Your task to perform on an android device: Add apple airpods pro to the cart on amazon, then select checkout. Image 0: 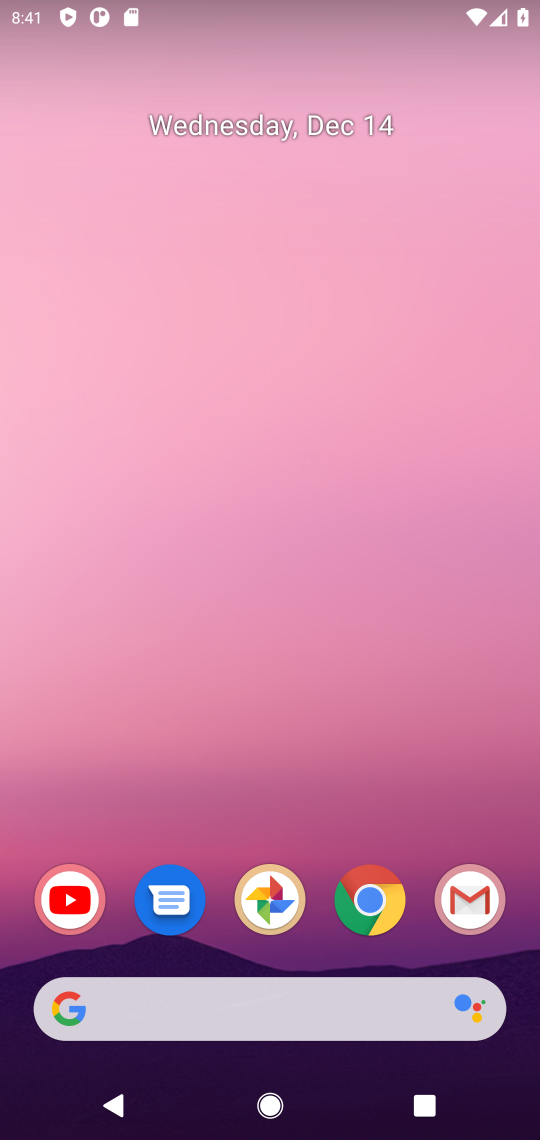
Step 0: click (285, 986)
Your task to perform on an android device: Add apple airpods pro to the cart on amazon, then select checkout. Image 1: 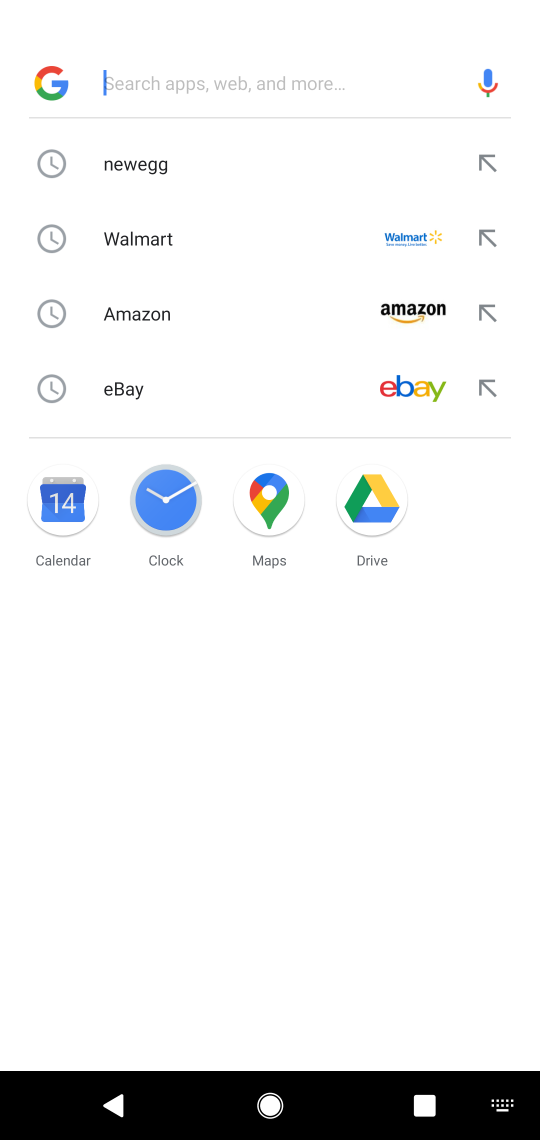
Step 1: click (247, 320)
Your task to perform on an android device: Add apple airpods pro to the cart on amazon, then select checkout. Image 2: 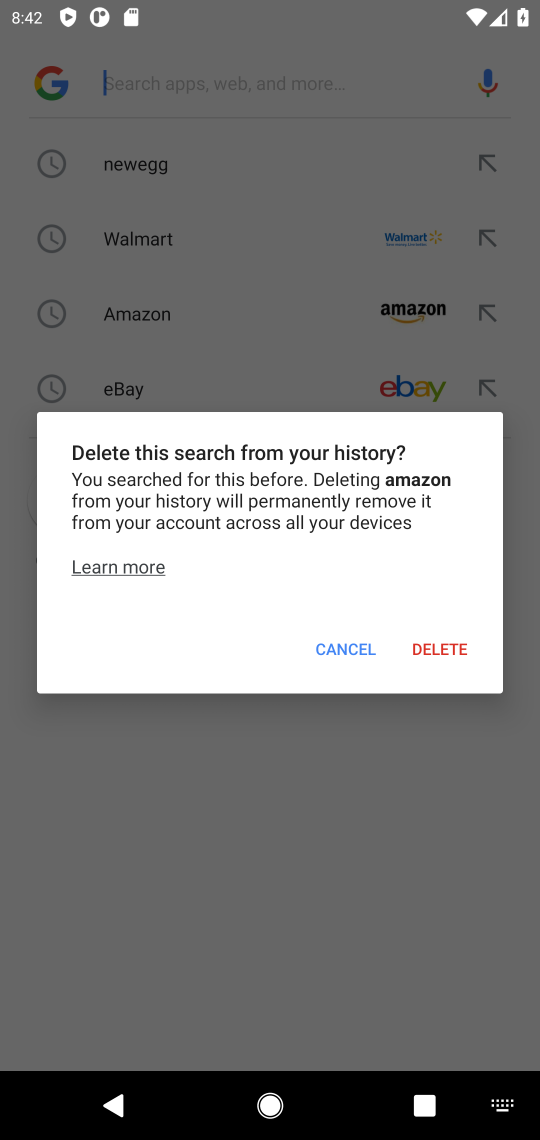
Step 2: click (357, 654)
Your task to perform on an android device: Add apple airpods pro to the cart on amazon, then select checkout. Image 3: 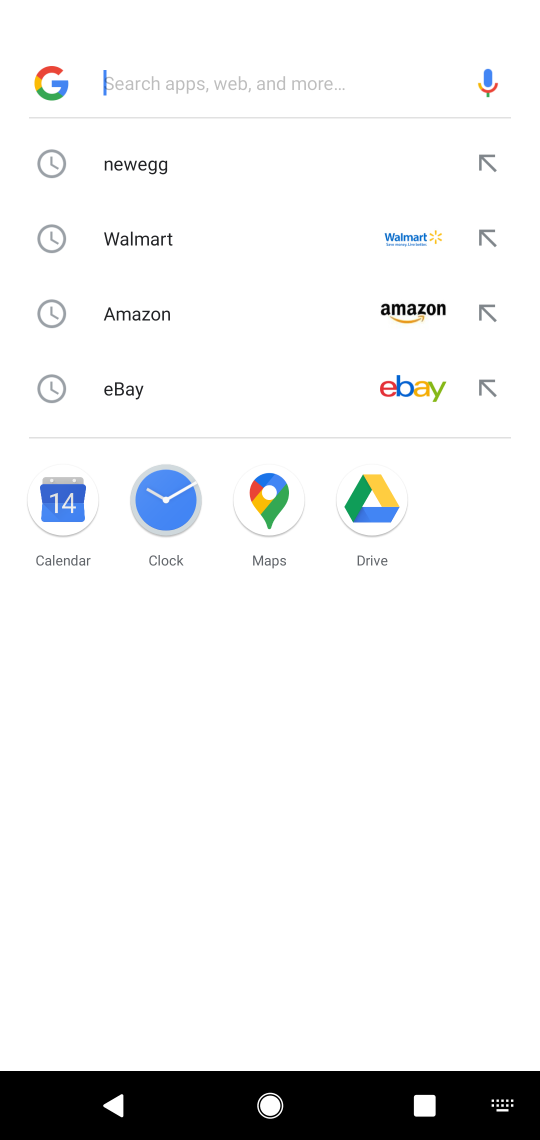
Step 3: click (143, 323)
Your task to perform on an android device: Add apple airpods pro to the cart on amazon, then select checkout. Image 4: 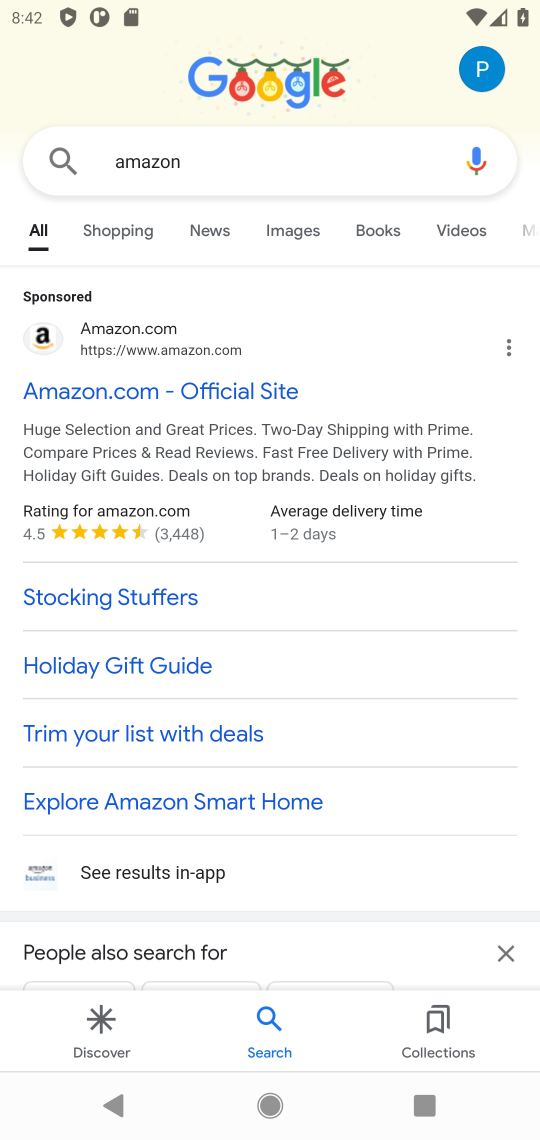
Step 4: click (119, 388)
Your task to perform on an android device: Add apple airpods pro to the cart on amazon, then select checkout. Image 5: 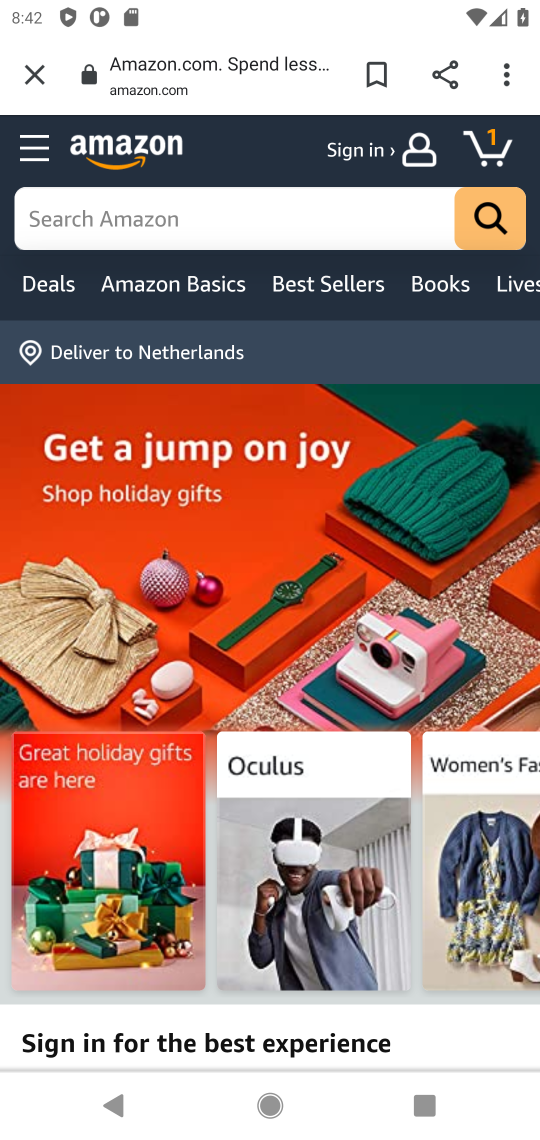
Step 5: click (273, 207)
Your task to perform on an android device: Add apple airpods pro to the cart on amazon, then select checkout. Image 6: 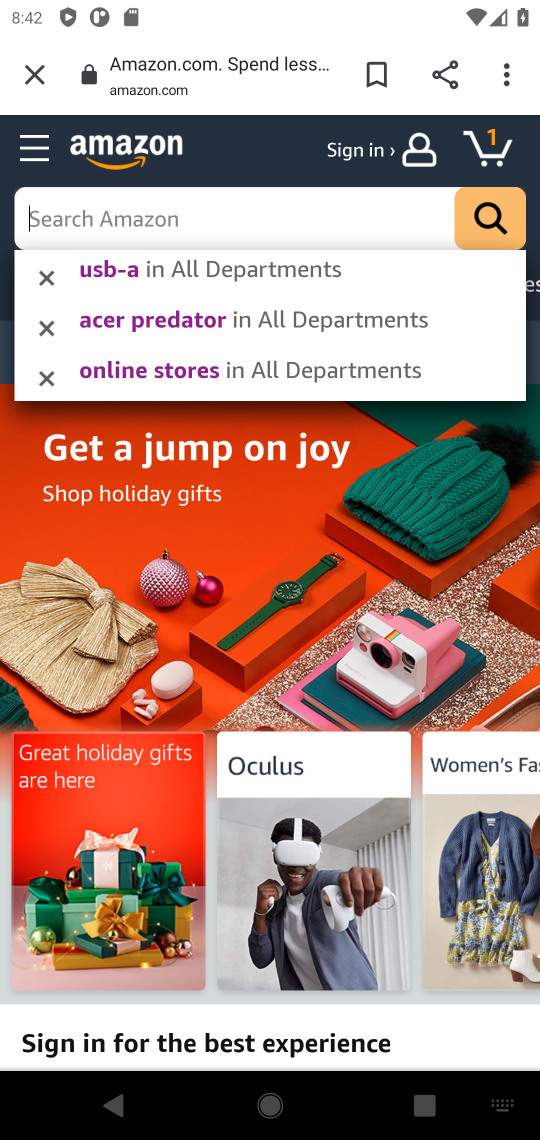
Step 6: type " apple airpods pro "
Your task to perform on an android device: Add apple airpods pro to the cart on amazon, then select checkout. Image 7: 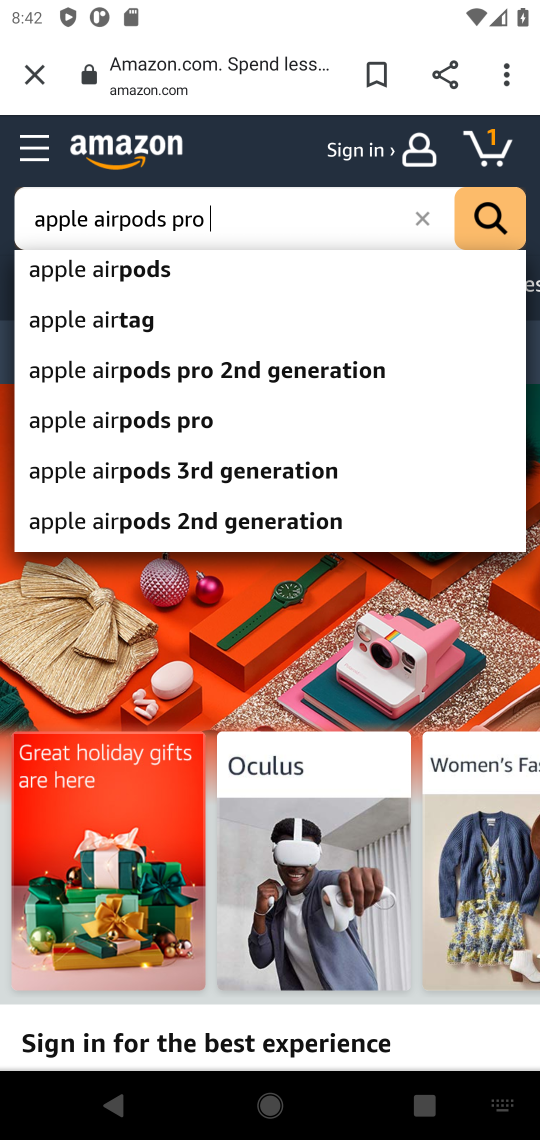
Step 7: type ""
Your task to perform on an android device: Add apple airpods pro to the cart on amazon, then select checkout. Image 8: 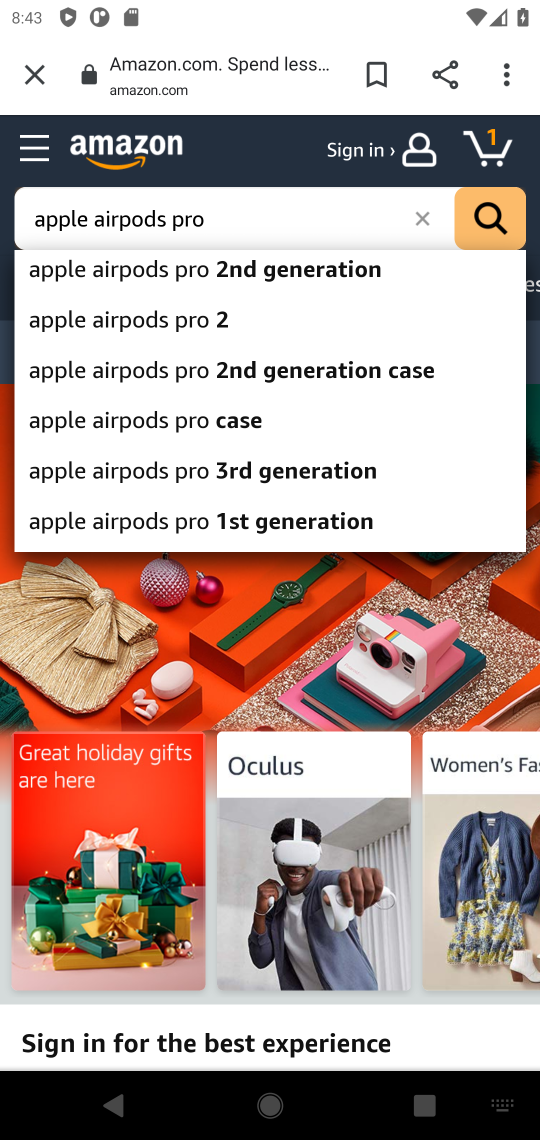
Step 8: click (499, 228)
Your task to perform on an android device: Add apple airpods pro to the cart on amazon, then select checkout. Image 9: 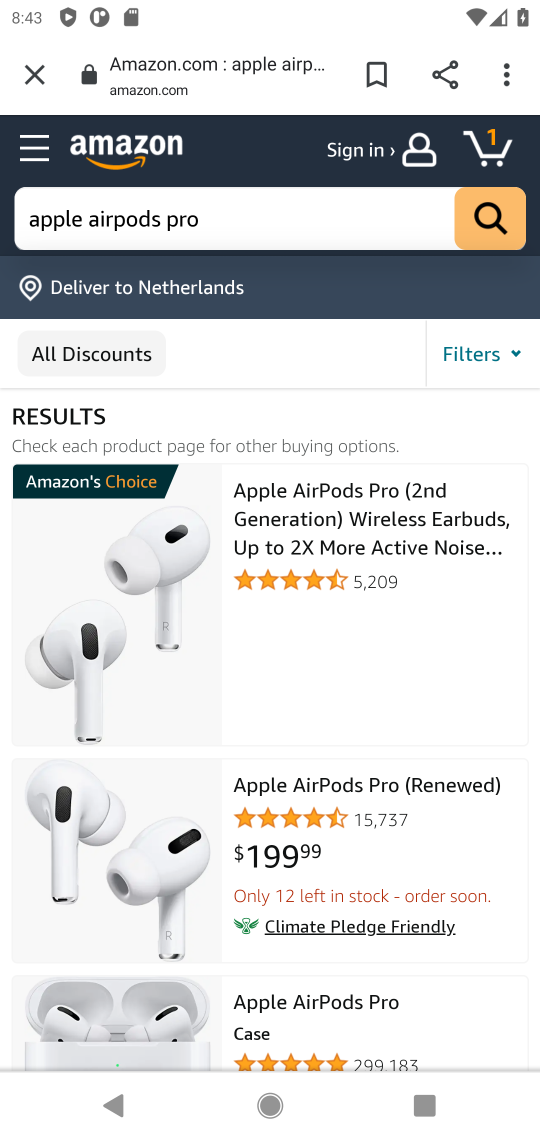
Step 9: click (256, 528)
Your task to perform on an android device: Add apple airpods pro to the cart on amazon, then select checkout. Image 10: 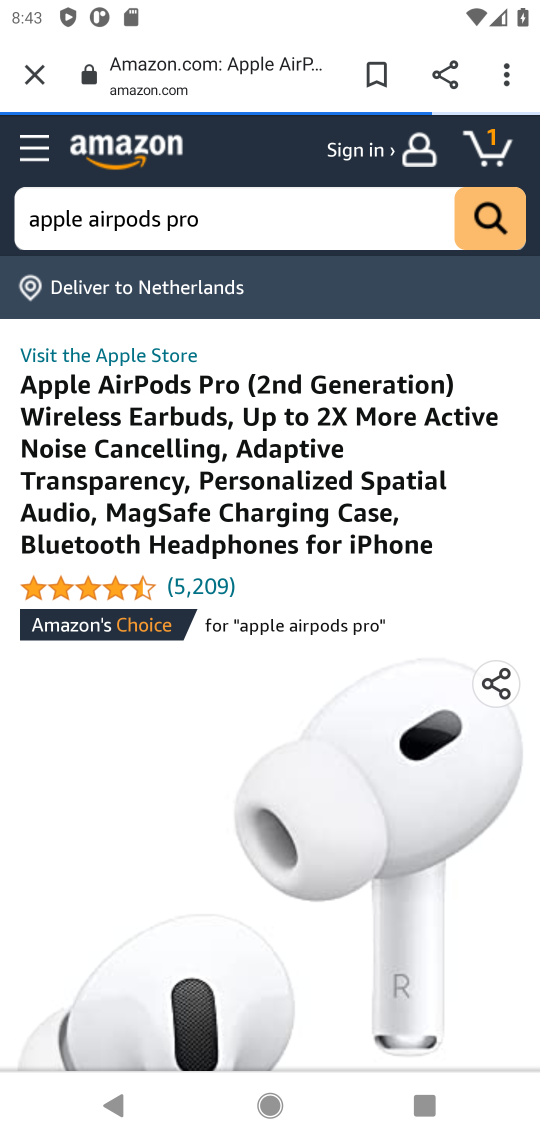
Step 10: task complete